Your task to perform on an android device: Go to Reddit.com Image 0: 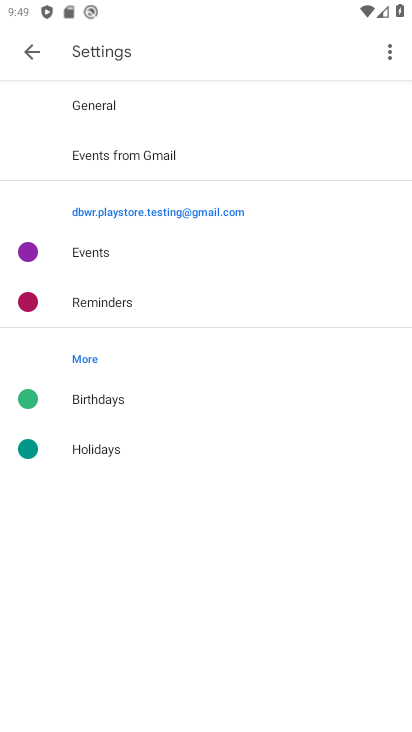
Step 0: press back button
Your task to perform on an android device: Go to Reddit.com Image 1: 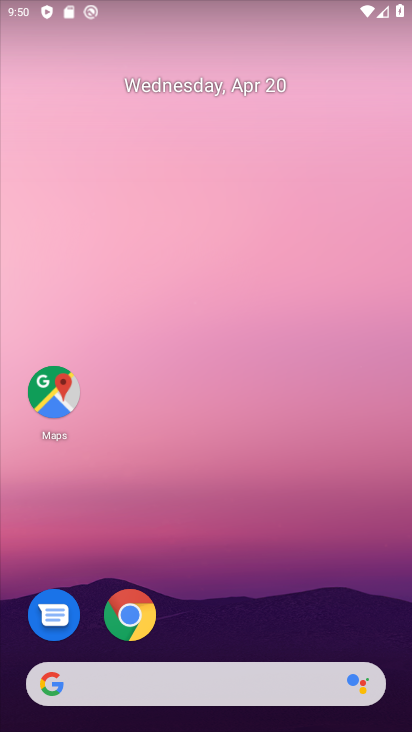
Step 1: click (163, 617)
Your task to perform on an android device: Go to Reddit.com Image 2: 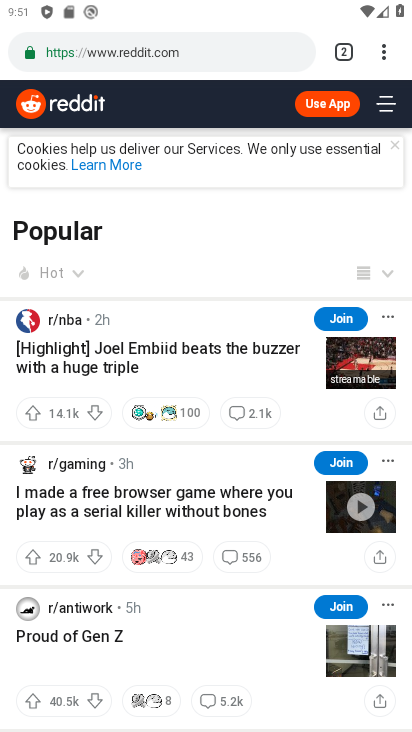
Step 2: task complete